Your task to perform on an android device: add a label to a message in the gmail app Image 0: 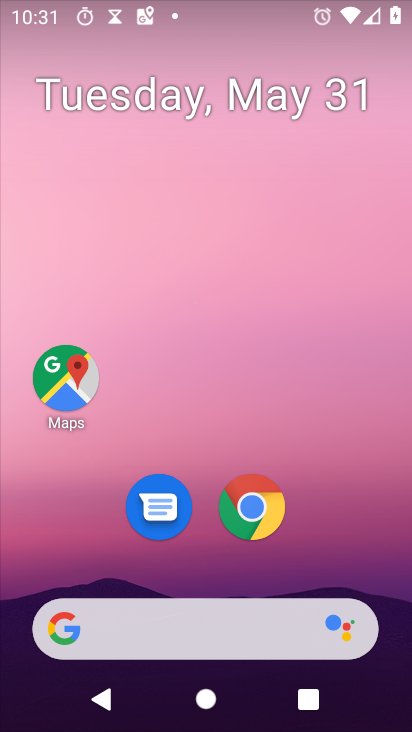
Step 0: drag from (17, 587) to (271, 192)
Your task to perform on an android device: add a label to a message in the gmail app Image 1: 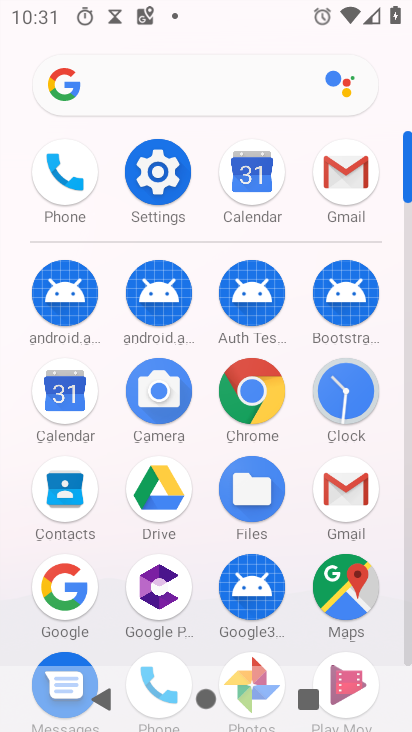
Step 1: click (325, 525)
Your task to perform on an android device: add a label to a message in the gmail app Image 2: 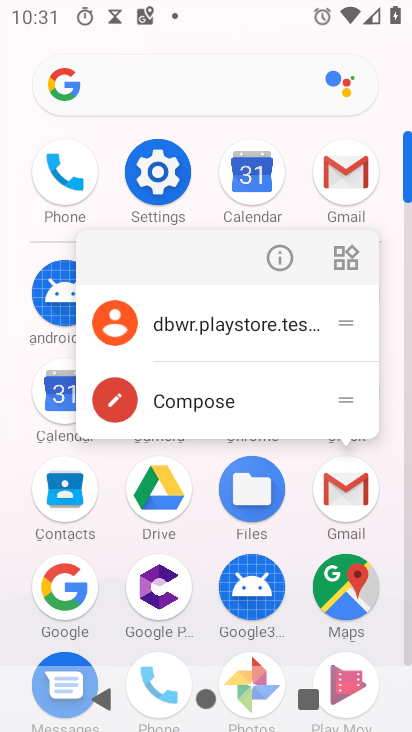
Step 2: click (333, 506)
Your task to perform on an android device: add a label to a message in the gmail app Image 3: 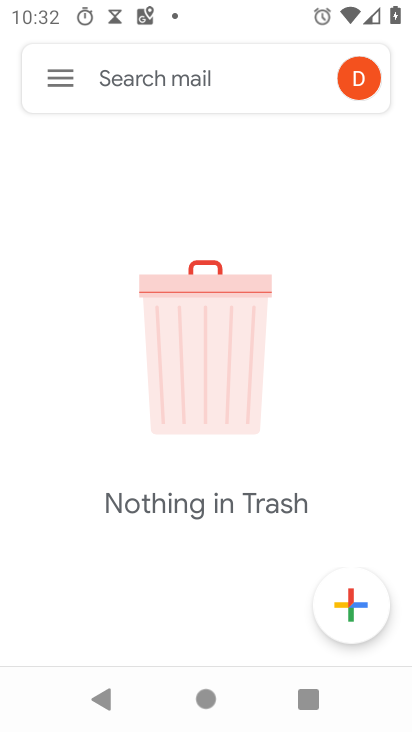
Step 3: click (67, 90)
Your task to perform on an android device: add a label to a message in the gmail app Image 4: 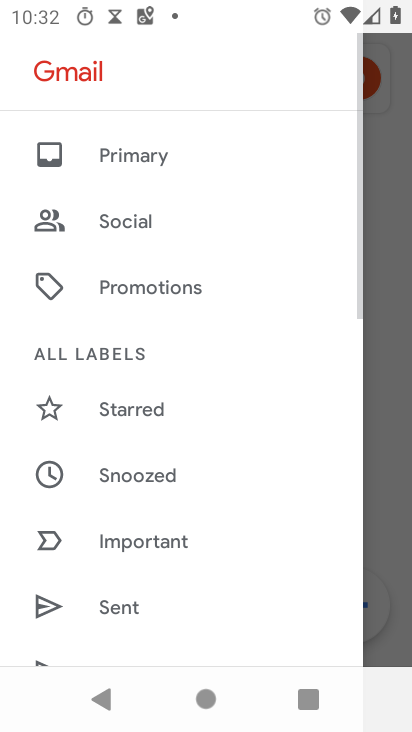
Step 4: task complete